Your task to perform on an android device: toggle wifi Image 0: 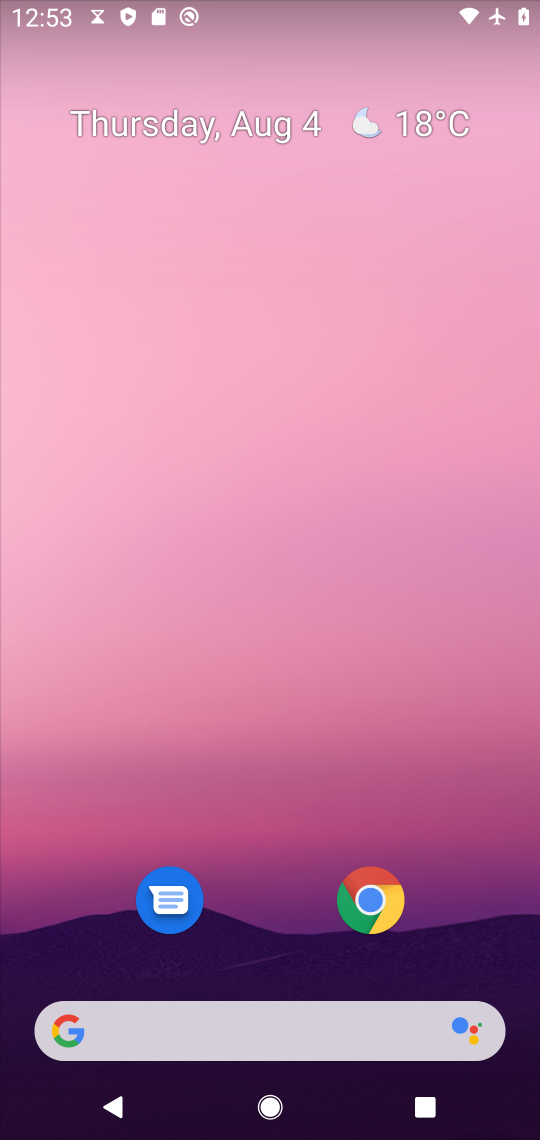
Step 0: drag from (320, 843) to (455, 121)
Your task to perform on an android device: toggle wifi Image 1: 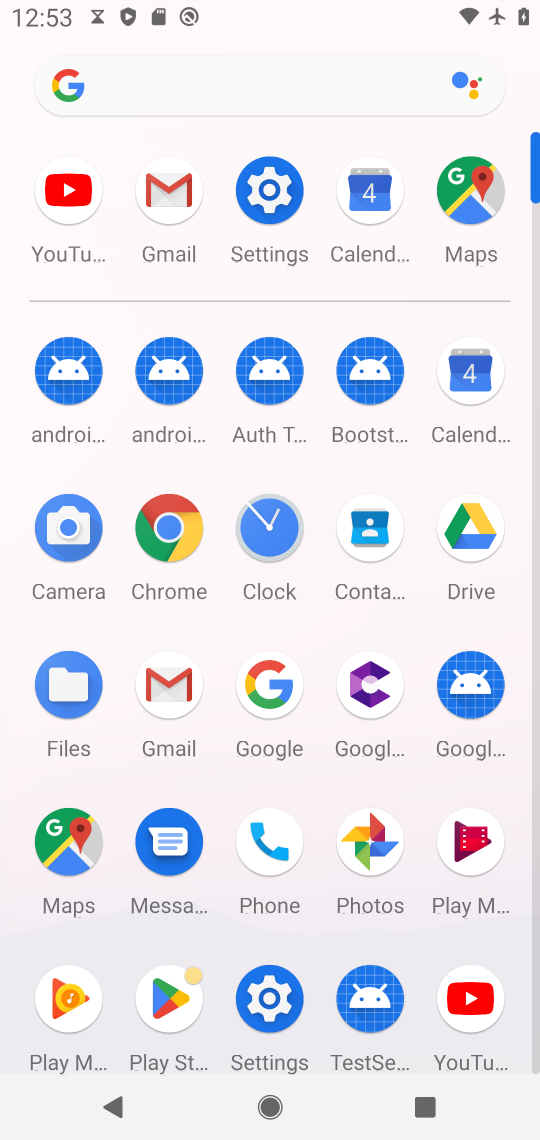
Step 1: drag from (228, 3) to (221, 891)
Your task to perform on an android device: toggle wifi Image 2: 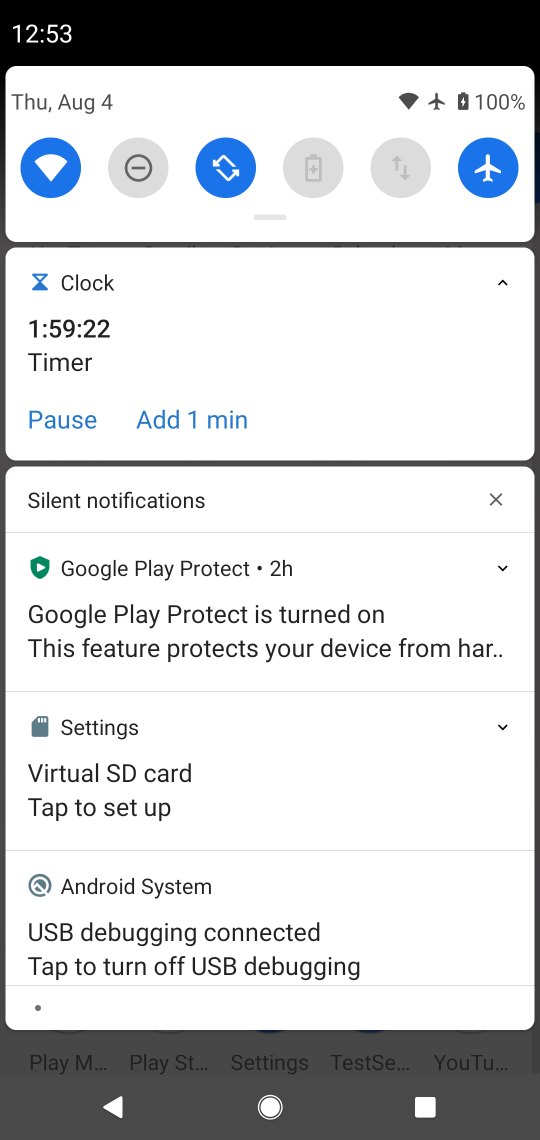
Step 2: click (44, 152)
Your task to perform on an android device: toggle wifi Image 3: 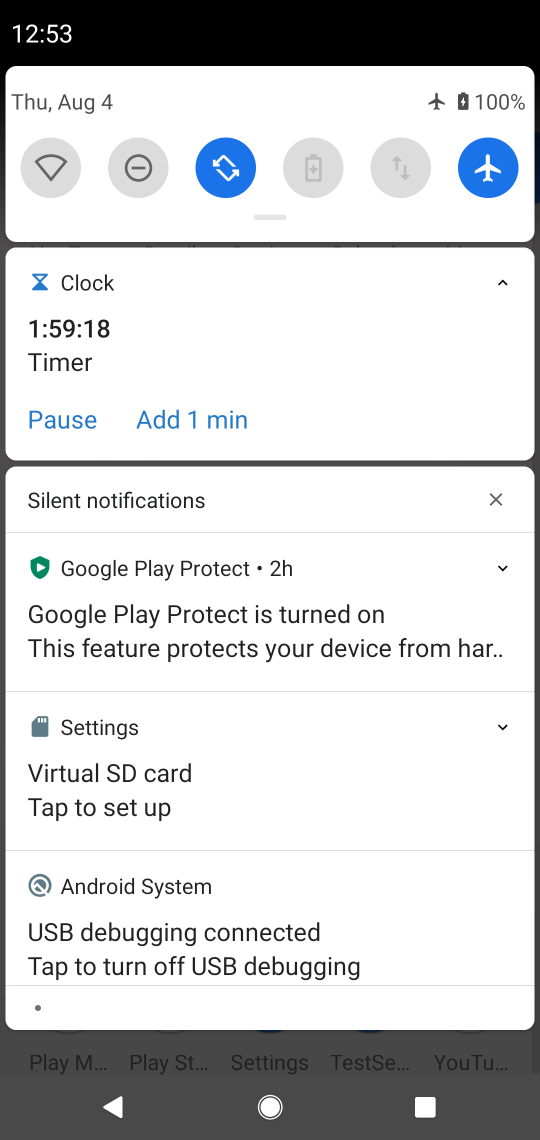
Step 3: task complete